Your task to perform on an android device: Open Google Chrome and open the bookmarks view Image 0: 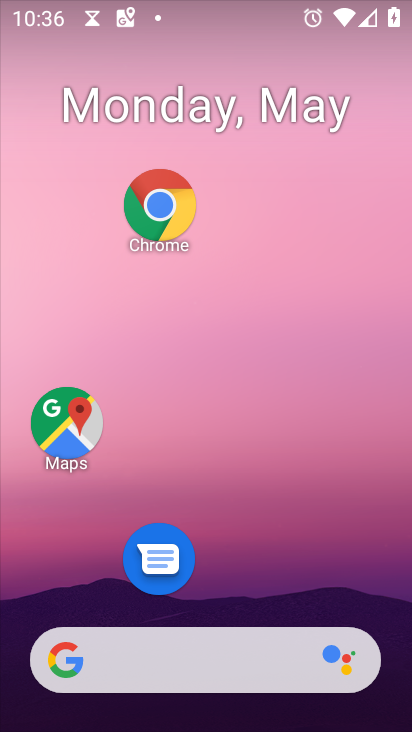
Step 0: drag from (284, 690) to (241, 145)
Your task to perform on an android device: Open Google Chrome and open the bookmarks view Image 1: 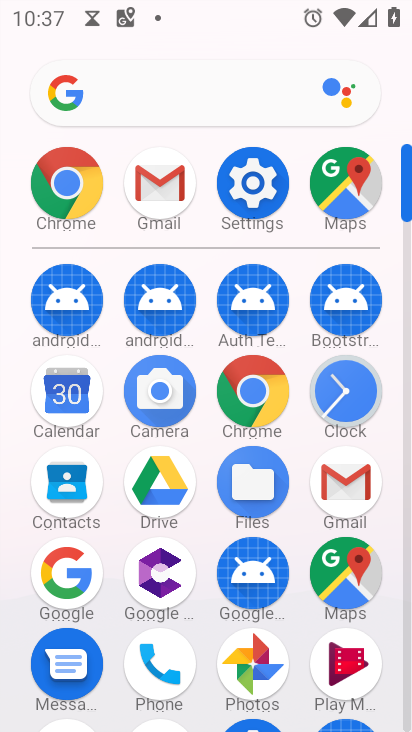
Step 1: click (249, 390)
Your task to perform on an android device: Open Google Chrome and open the bookmarks view Image 2: 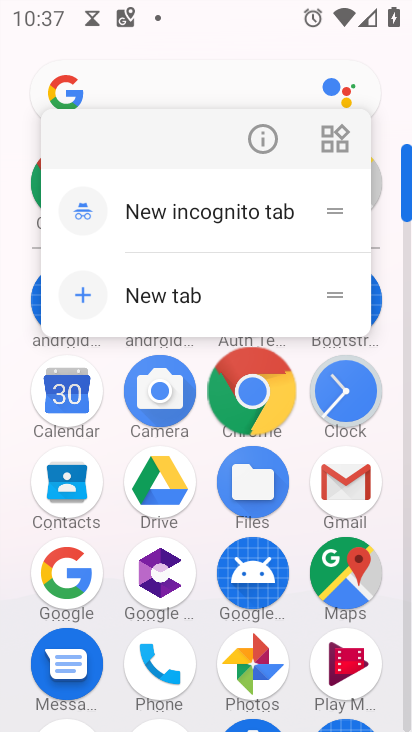
Step 2: click (250, 390)
Your task to perform on an android device: Open Google Chrome and open the bookmarks view Image 3: 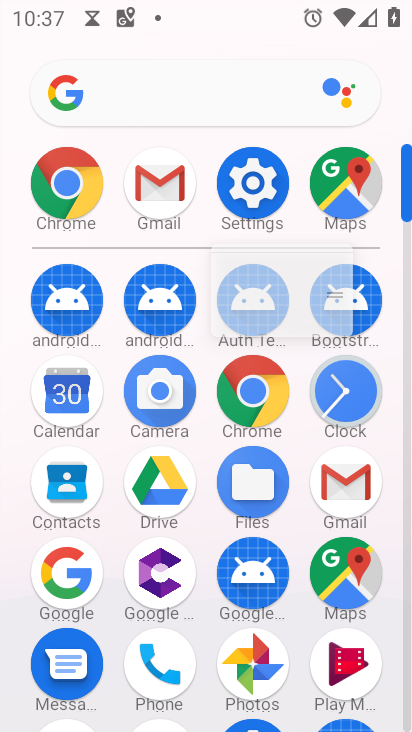
Step 3: click (251, 390)
Your task to perform on an android device: Open Google Chrome and open the bookmarks view Image 4: 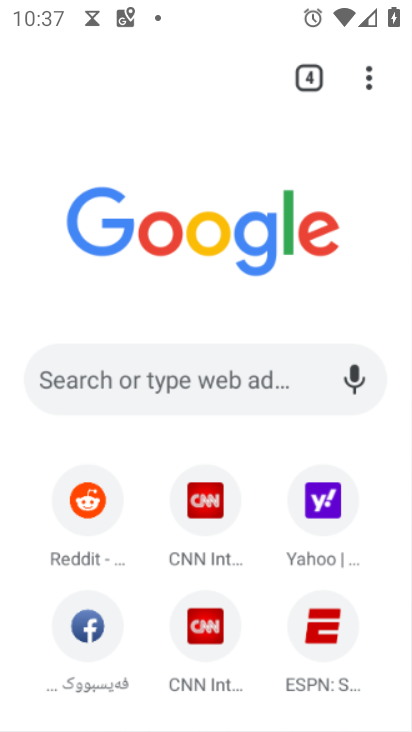
Step 4: click (254, 387)
Your task to perform on an android device: Open Google Chrome and open the bookmarks view Image 5: 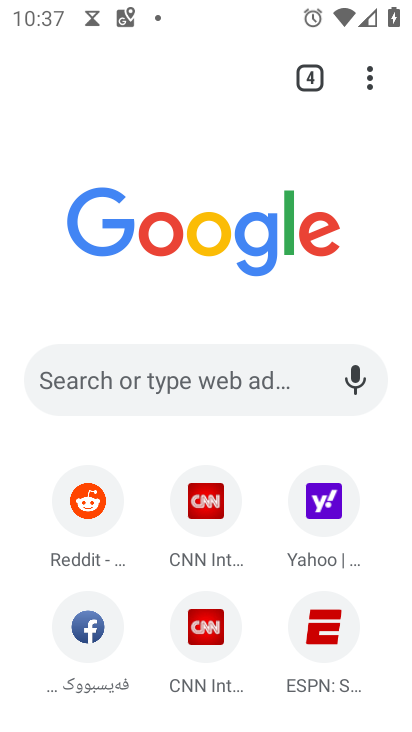
Step 5: click (366, 84)
Your task to perform on an android device: Open Google Chrome and open the bookmarks view Image 6: 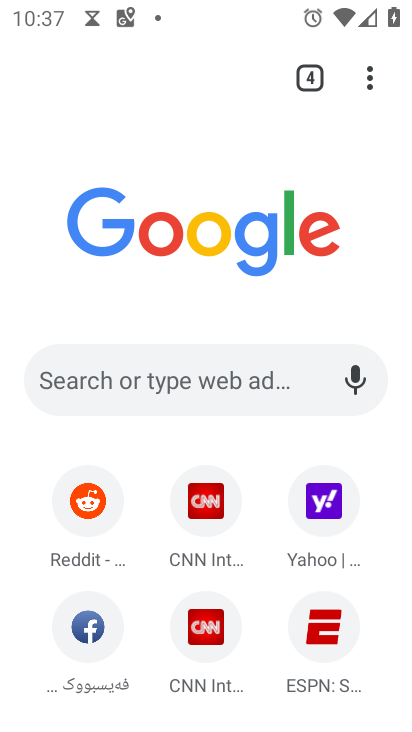
Step 6: drag from (370, 76) to (108, 291)
Your task to perform on an android device: Open Google Chrome and open the bookmarks view Image 7: 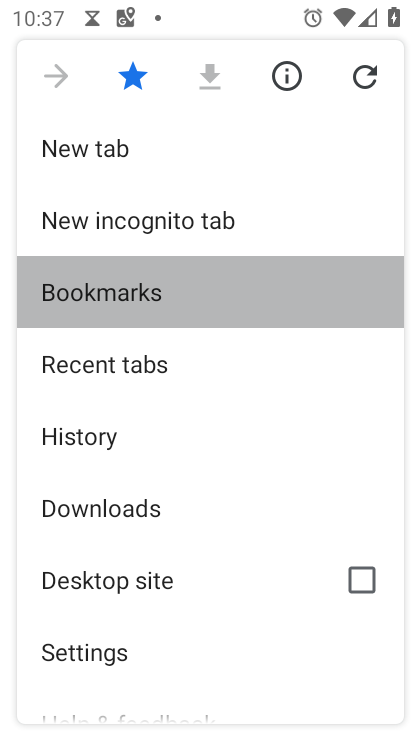
Step 7: click (113, 295)
Your task to perform on an android device: Open Google Chrome and open the bookmarks view Image 8: 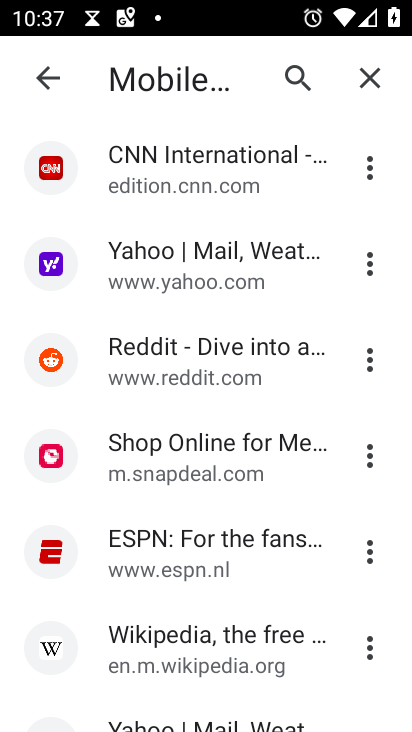
Step 8: task complete